Your task to perform on an android device: What's the weather today? Image 0: 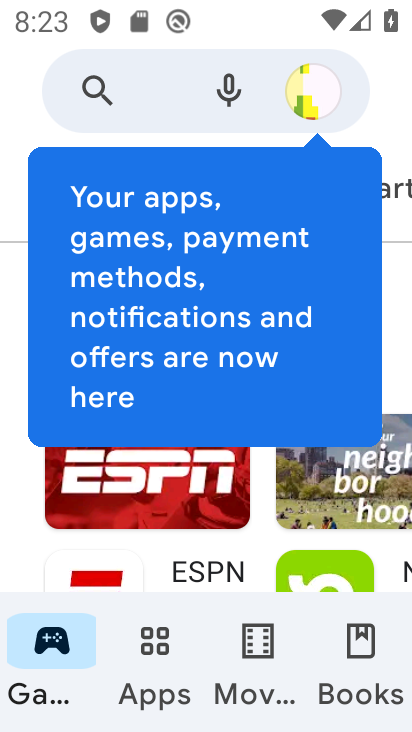
Step 0: press home button
Your task to perform on an android device: What's the weather today? Image 1: 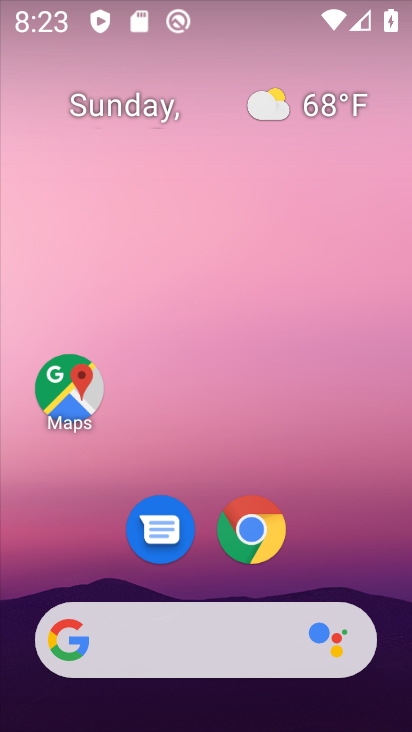
Step 1: click (336, 103)
Your task to perform on an android device: What's the weather today? Image 2: 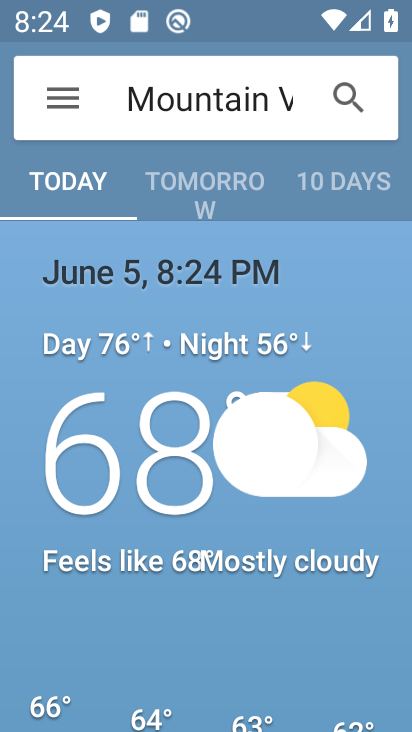
Step 2: task complete